Your task to perform on an android device: add a label to a message in the gmail app Image 0: 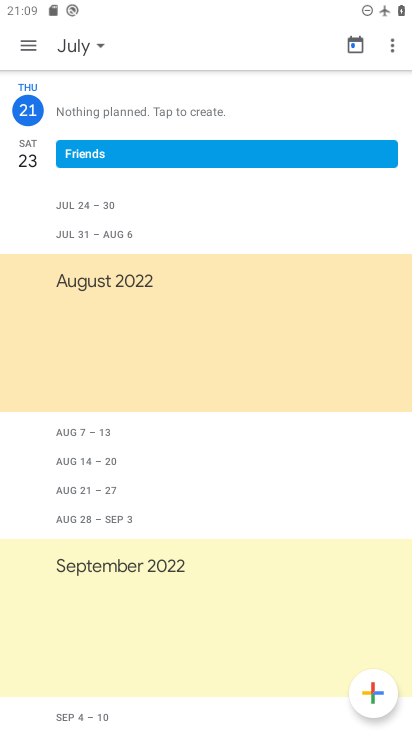
Step 0: press home button
Your task to perform on an android device: add a label to a message in the gmail app Image 1: 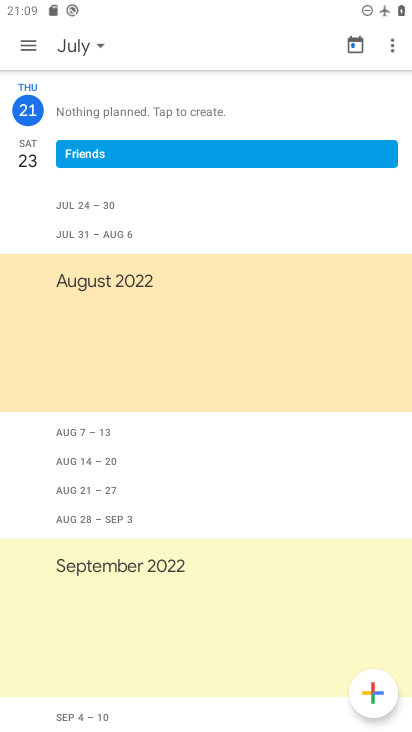
Step 1: press home button
Your task to perform on an android device: add a label to a message in the gmail app Image 2: 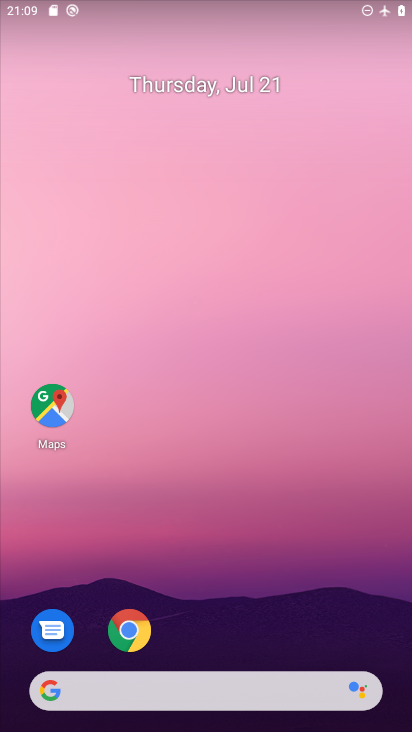
Step 2: drag from (275, 650) to (290, 39)
Your task to perform on an android device: add a label to a message in the gmail app Image 3: 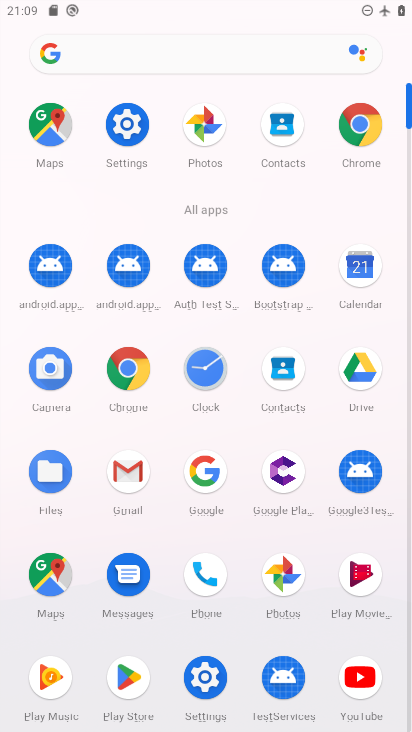
Step 3: click (123, 474)
Your task to perform on an android device: add a label to a message in the gmail app Image 4: 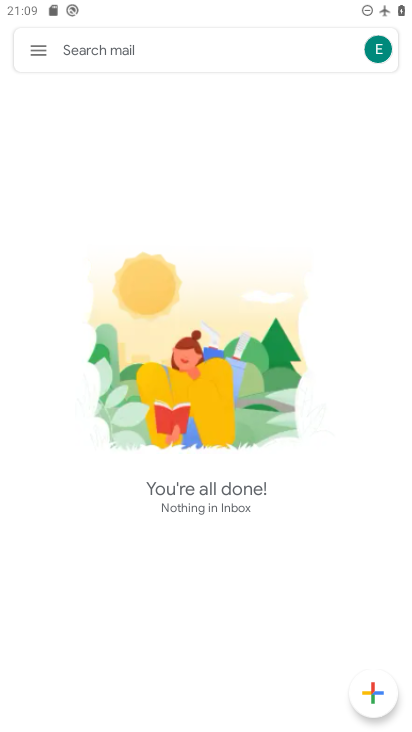
Step 4: click (36, 49)
Your task to perform on an android device: add a label to a message in the gmail app Image 5: 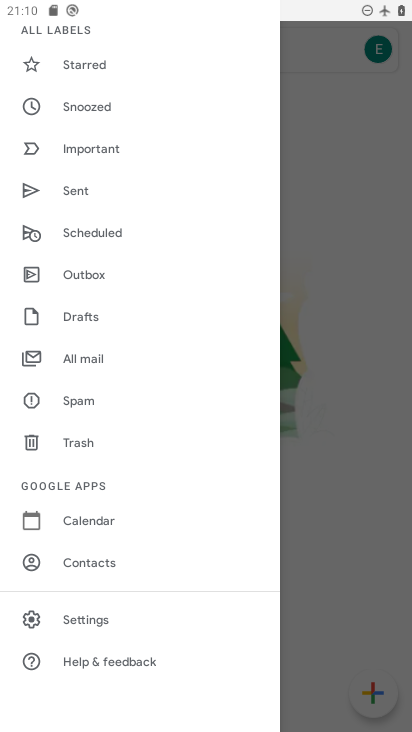
Step 5: click (358, 471)
Your task to perform on an android device: add a label to a message in the gmail app Image 6: 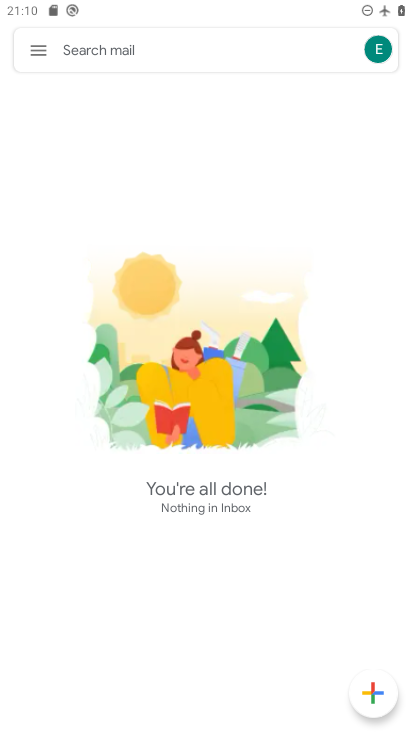
Step 6: click (26, 46)
Your task to perform on an android device: add a label to a message in the gmail app Image 7: 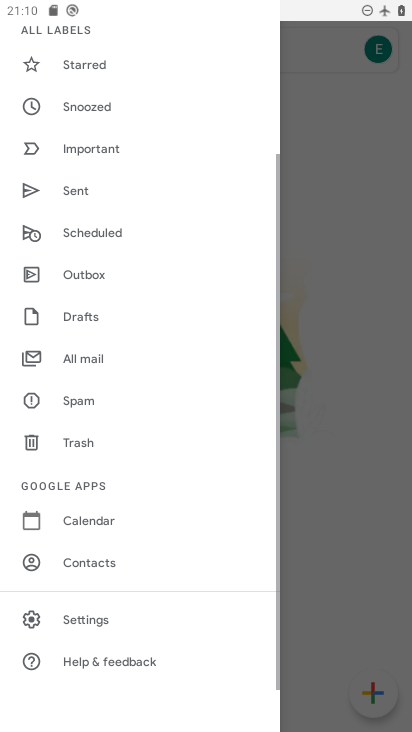
Step 7: click (71, 353)
Your task to perform on an android device: add a label to a message in the gmail app Image 8: 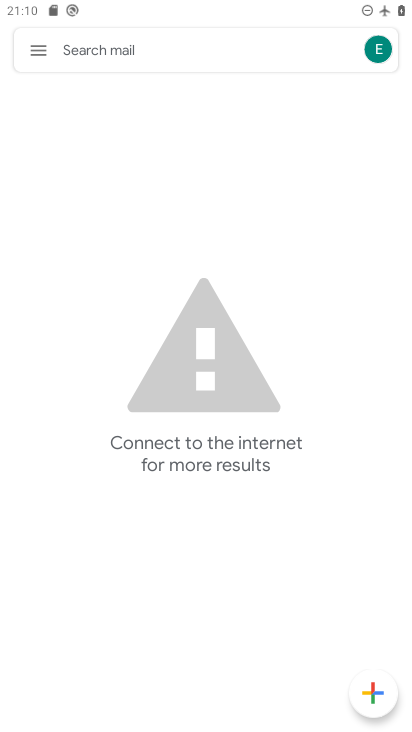
Step 8: task complete